Your task to perform on an android device: What's the weather like in Singapore? Image 0: 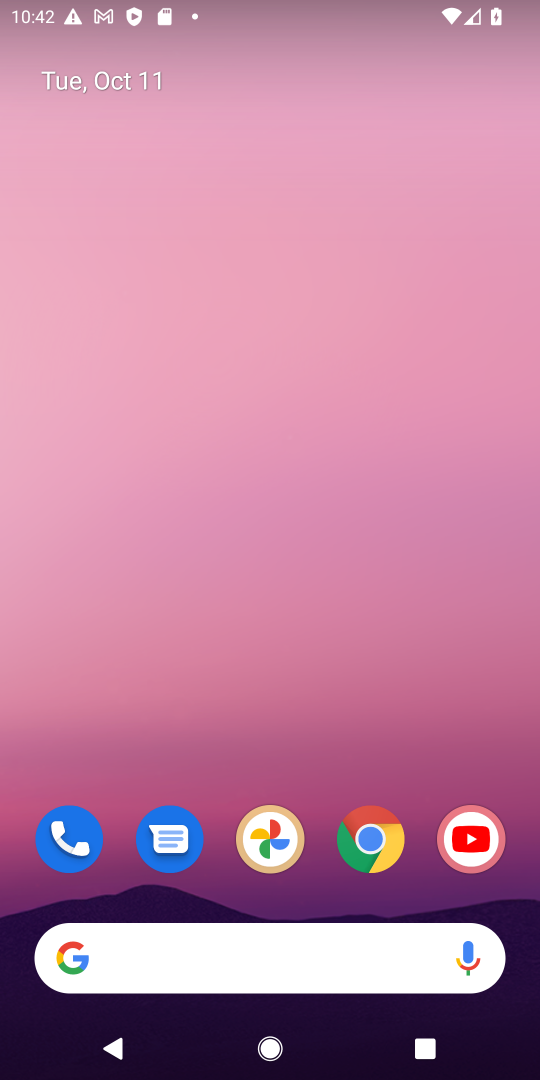
Step 0: drag from (356, 880) to (337, 460)
Your task to perform on an android device: What's the weather like in Singapore? Image 1: 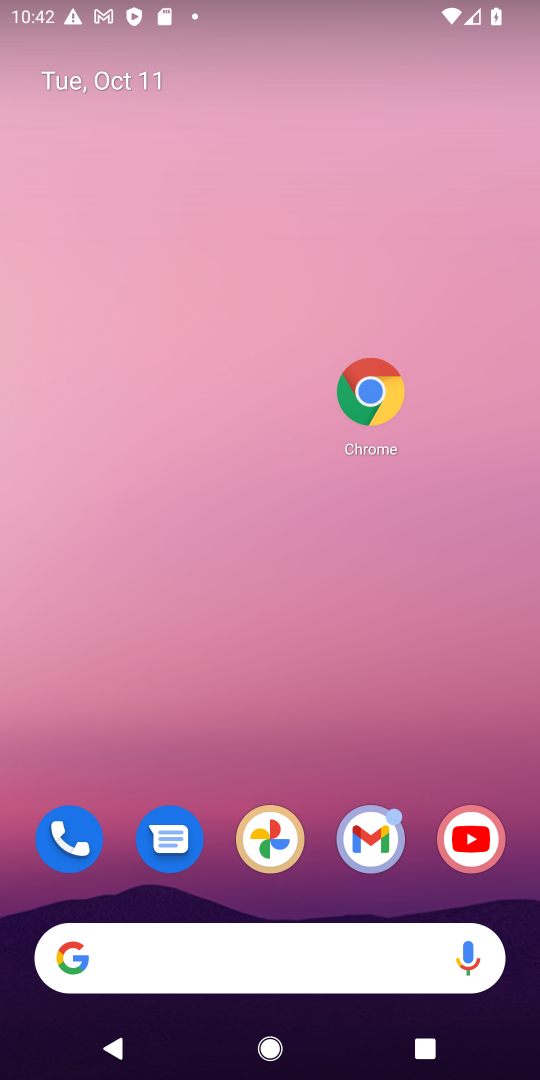
Step 1: drag from (307, 774) to (266, 276)
Your task to perform on an android device: What's the weather like in Singapore? Image 2: 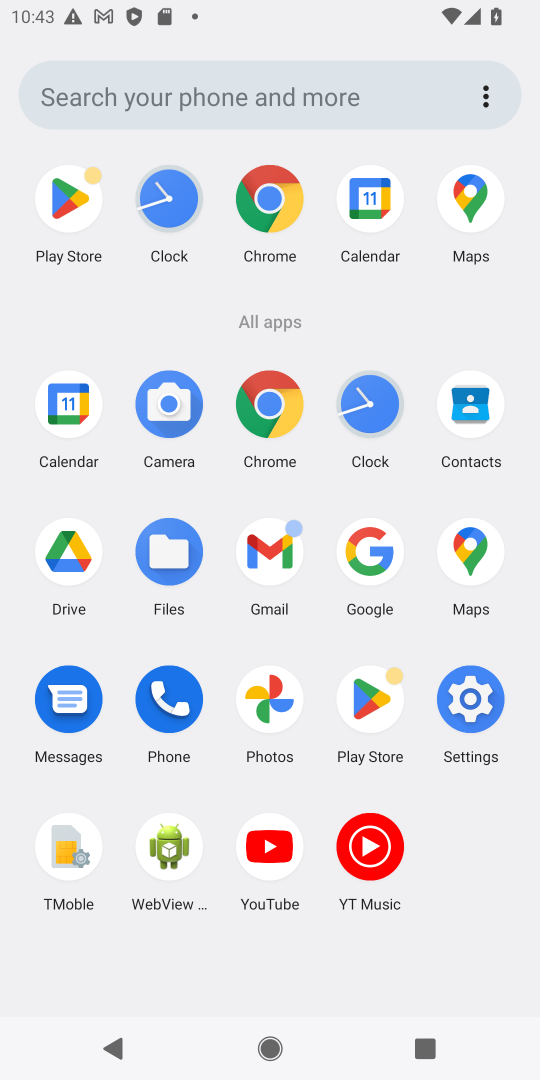
Step 2: click (377, 570)
Your task to perform on an android device: What's the weather like in Singapore? Image 3: 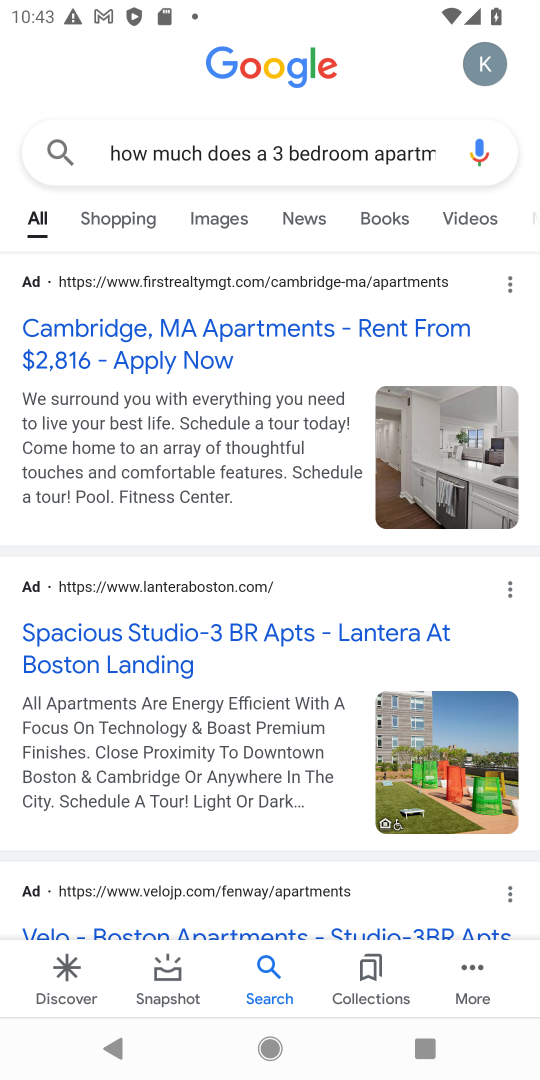
Step 3: click (320, 156)
Your task to perform on an android device: What's the weather like in Singapore? Image 4: 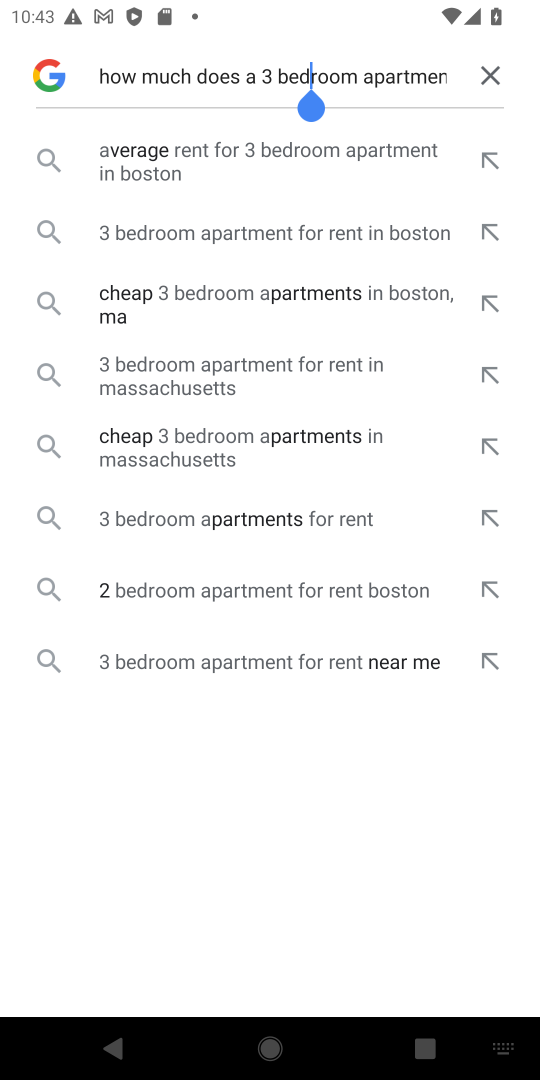
Step 4: click (481, 71)
Your task to perform on an android device: What's the weather like in Singapore? Image 5: 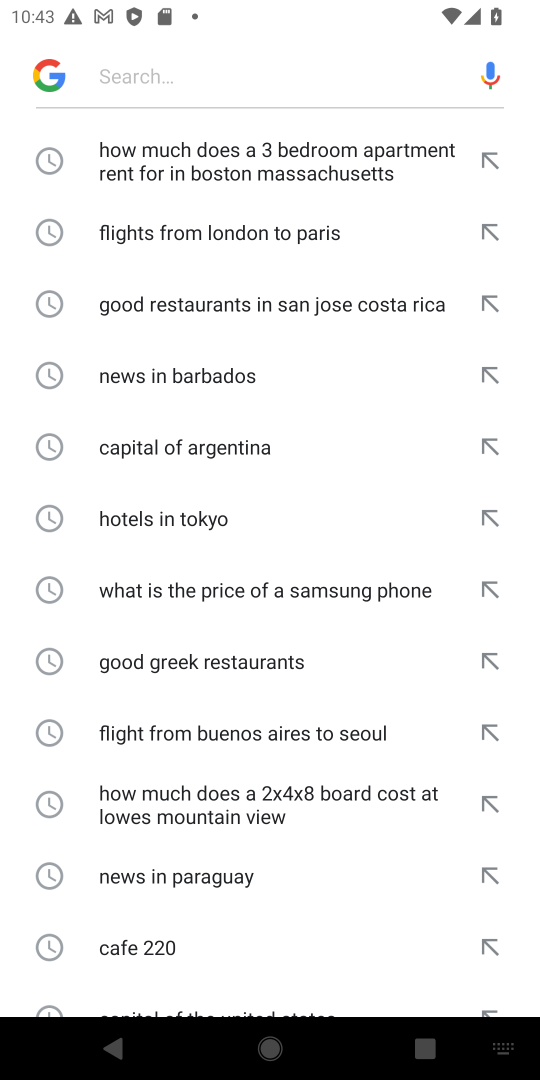
Step 5: type "What's the weather like in Singapore?"
Your task to perform on an android device: What's the weather like in Singapore? Image 6: 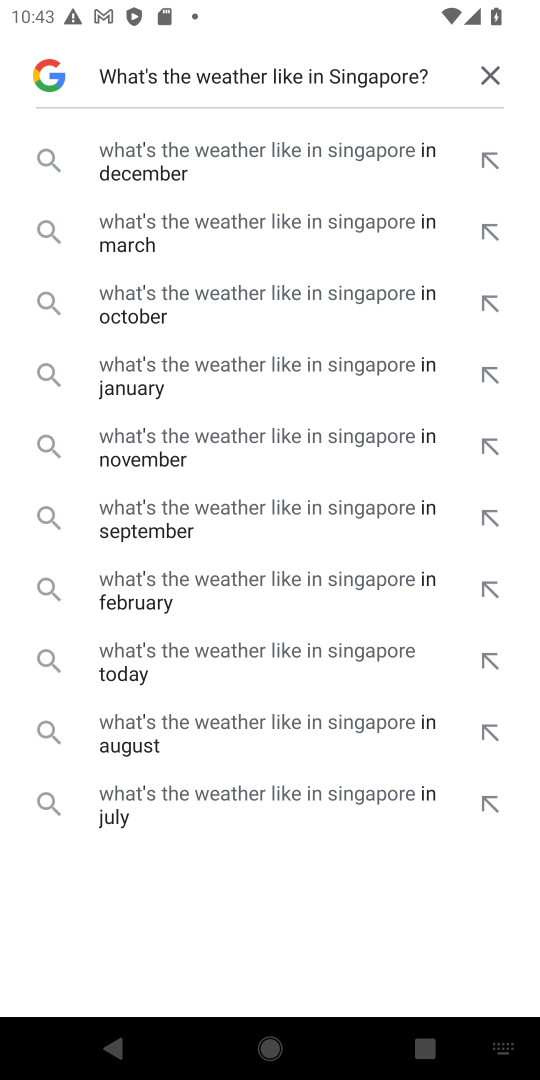
Step 6: click (196, 658)
Your task to perform on an android device: What's the weather like in Singapore? Image 7: 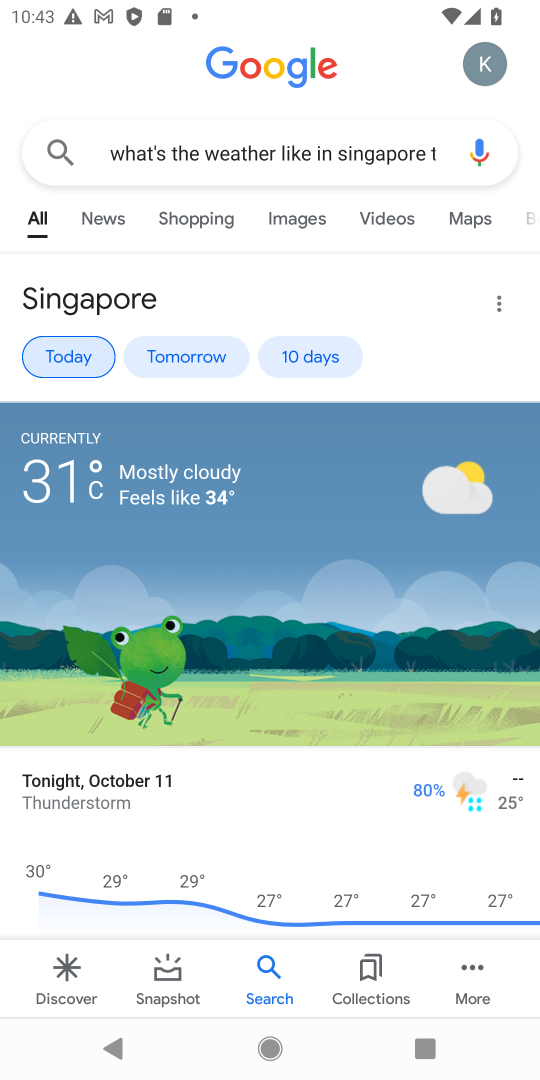
Step 7: task complete